Your task to perform on an android device: Open the phone app and click the voicemail tab. Image 0: 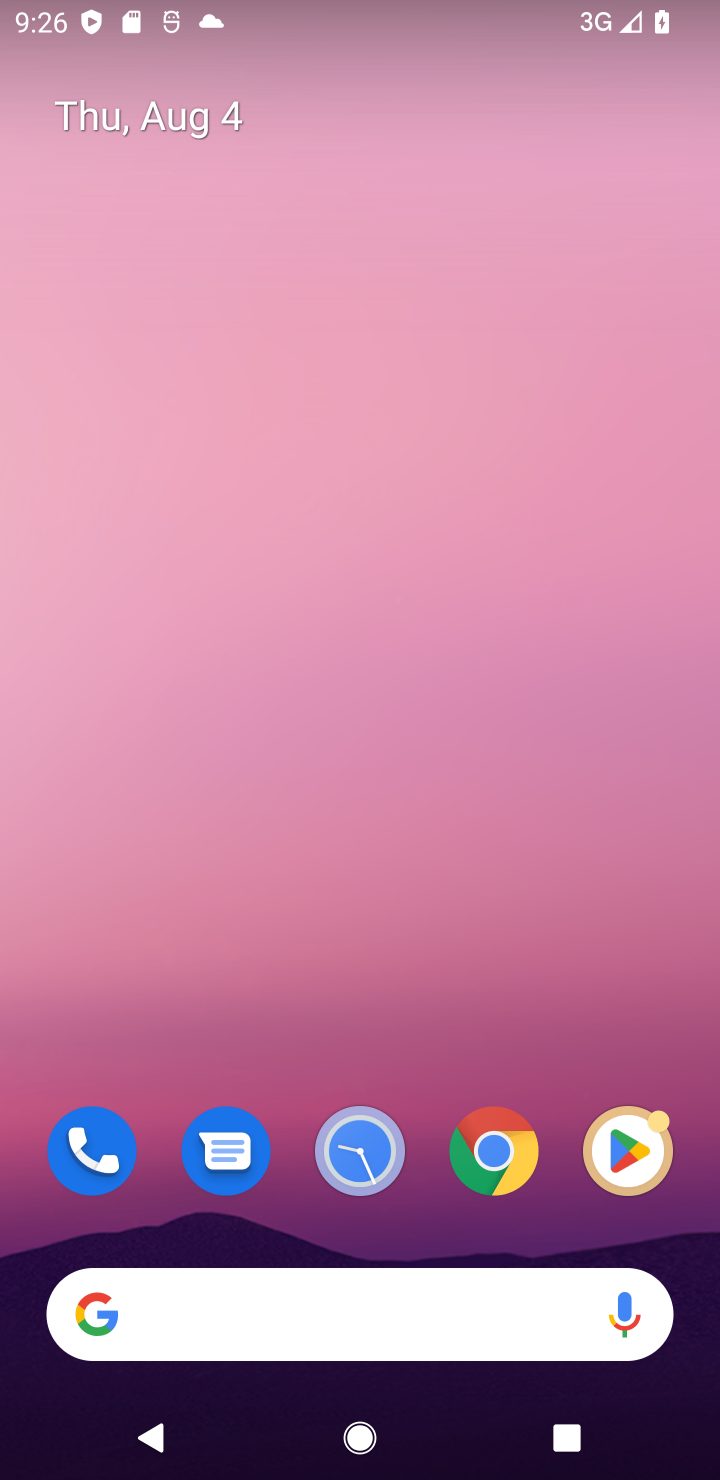
Step 0: click (68, 1158)
Your task to perform on an android device: Open the phone app and click the voicemail tab. Image 1: 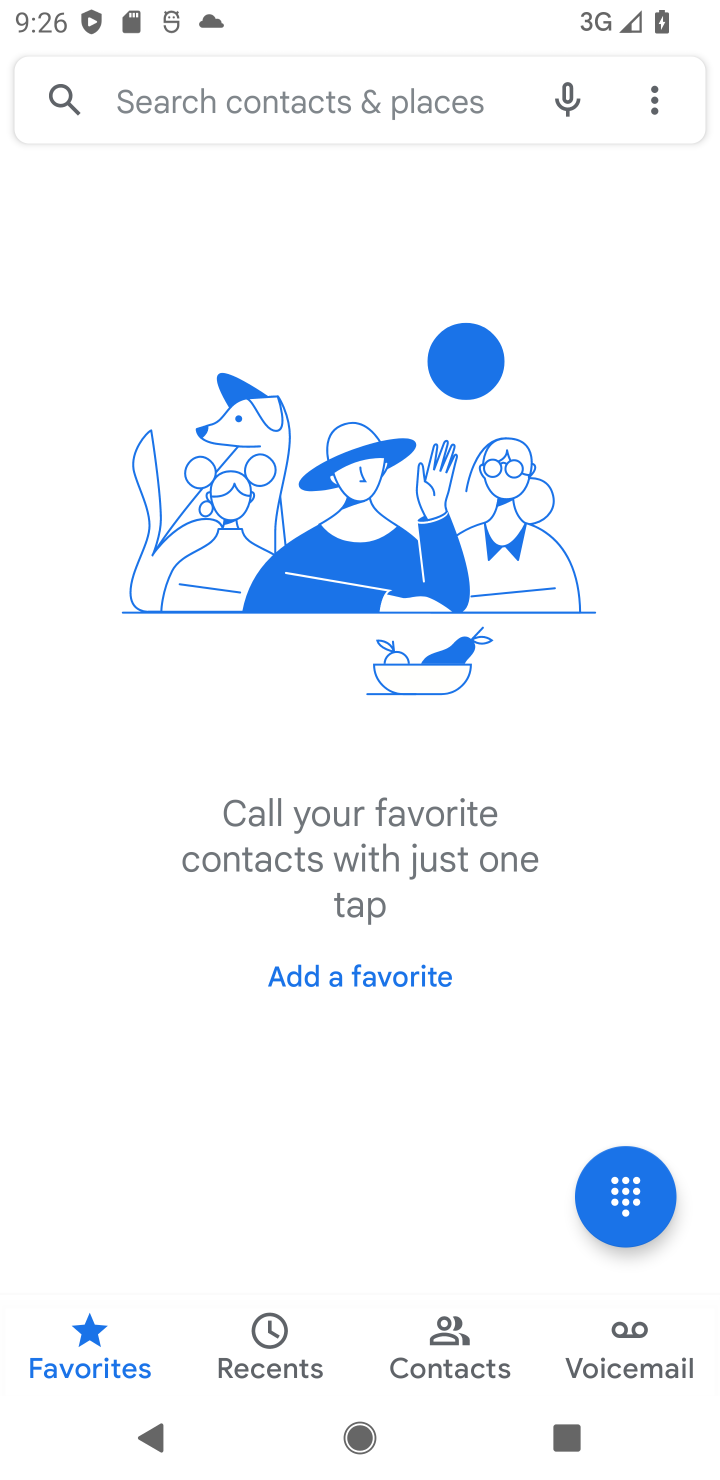
Step 1: click (644, 1323)
Your task to perform on an android device: Open the phone app and click the voicemail tab. Image 2: 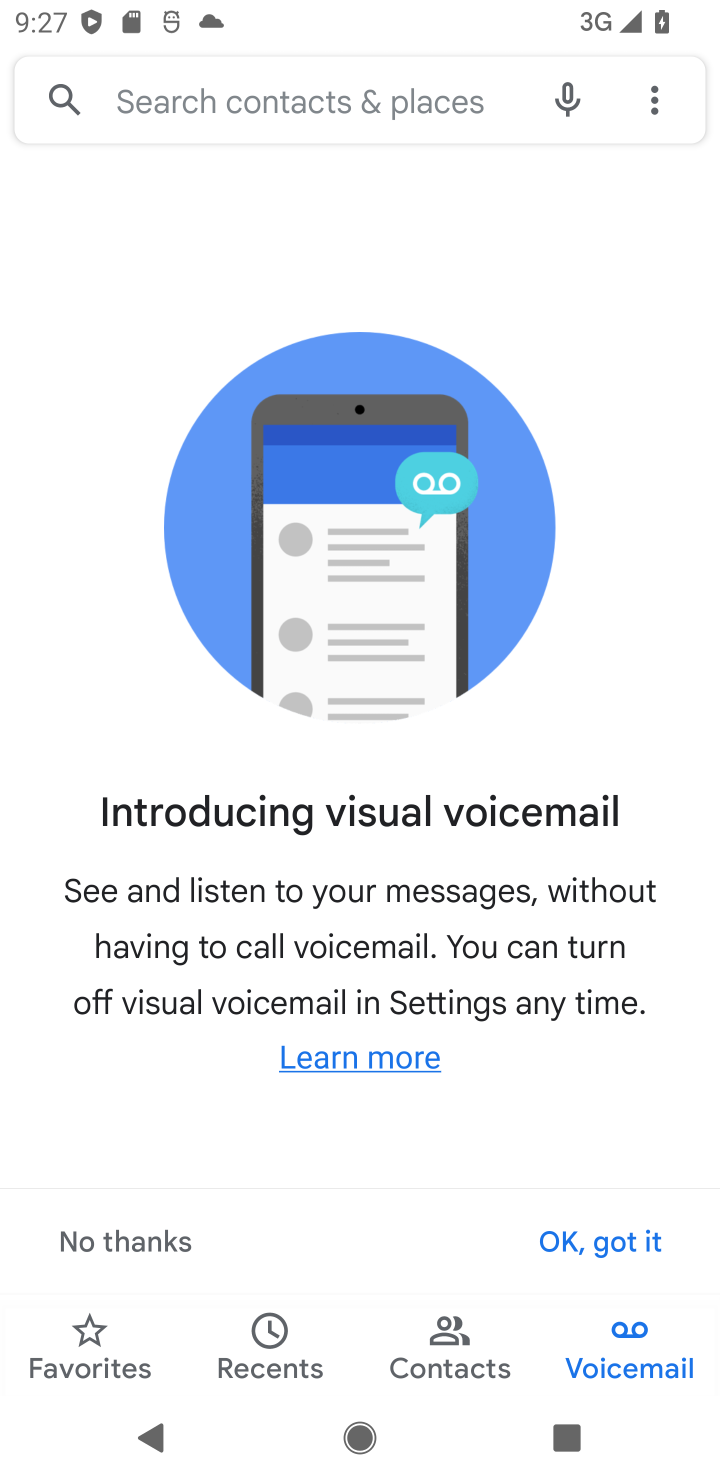
Step 2: task complete